Your task to perform on an android device: find photos in the google photos app Image 0: 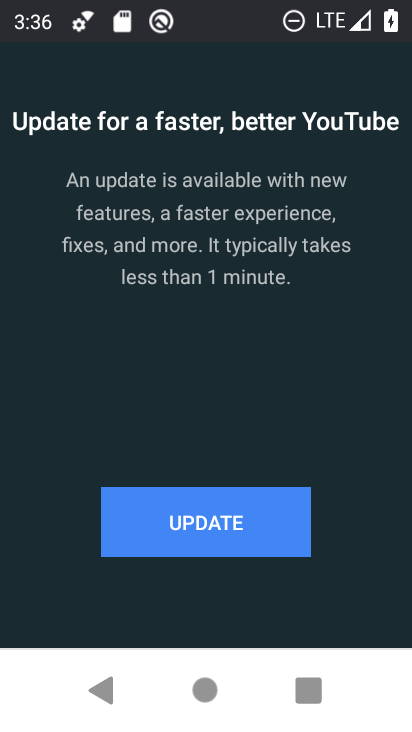
Step 0: press home button
Your task to perform on an android device: find photos in the google photos app Image 1: 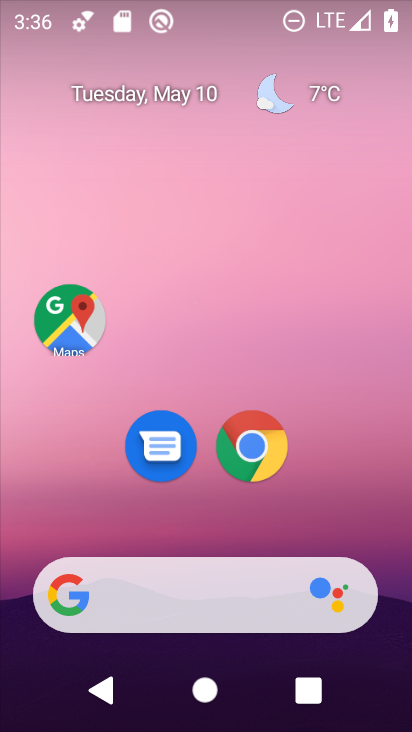
Step 1: drag from (304, 521) to (267, 67)
Your task to perform on an android device: find photos in the google photos app Image 2: 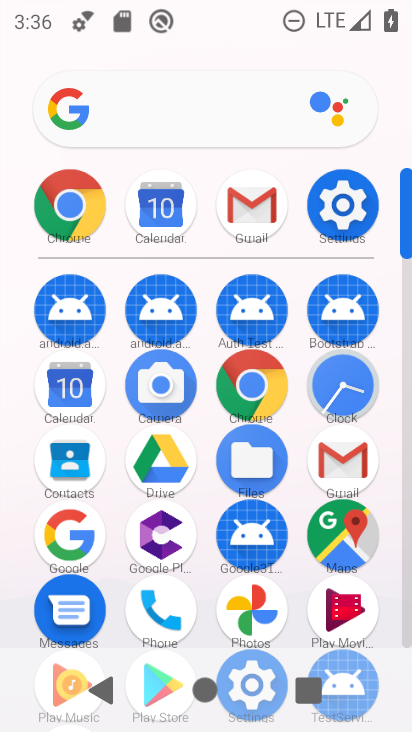
Step 2: click (262, 612)
Your task to perform on an android device: find photos in the google photos app Image 3: 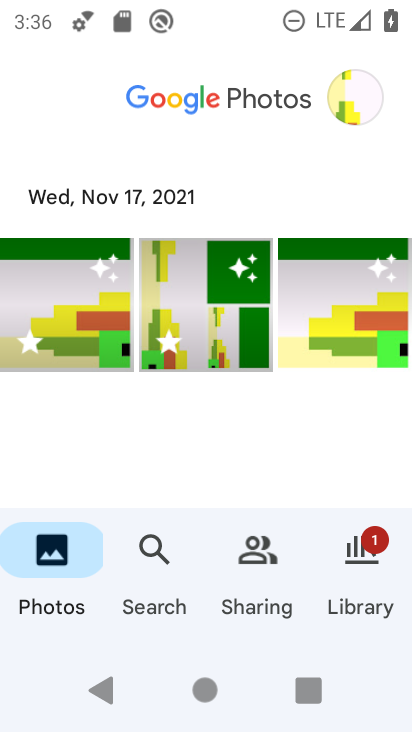
Step 3: click (65, 557)
Your task to perform on an android device: find photos in the google photos app Image 4: 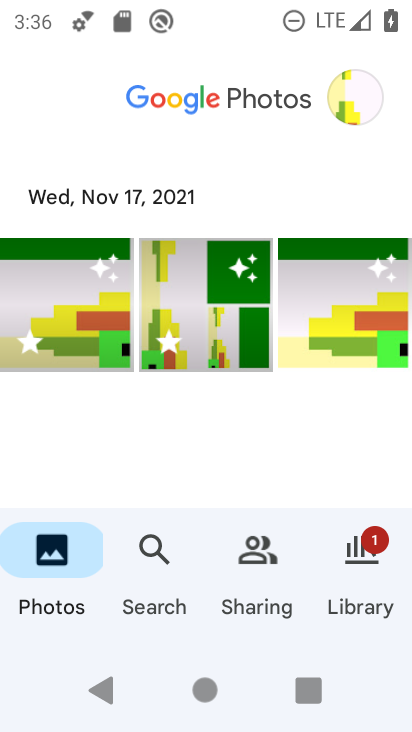
Step 4: task complete